Your task to perform on an android device: What's the weather going to be this weekend? Image 0: 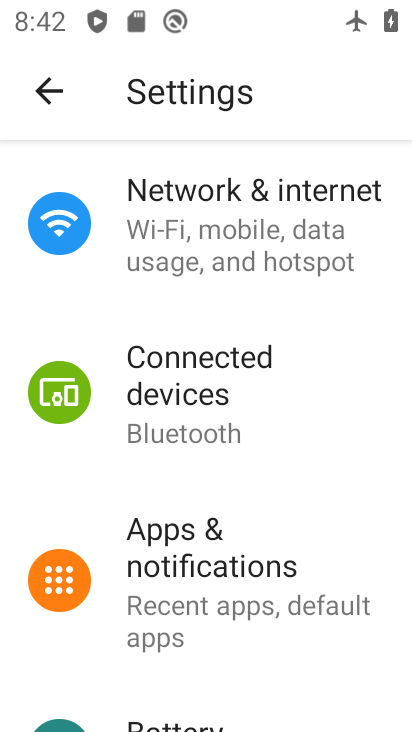
Step 0: press back button
Your task to perform on an android device: What's the weather going to be this weekend? Image 1: 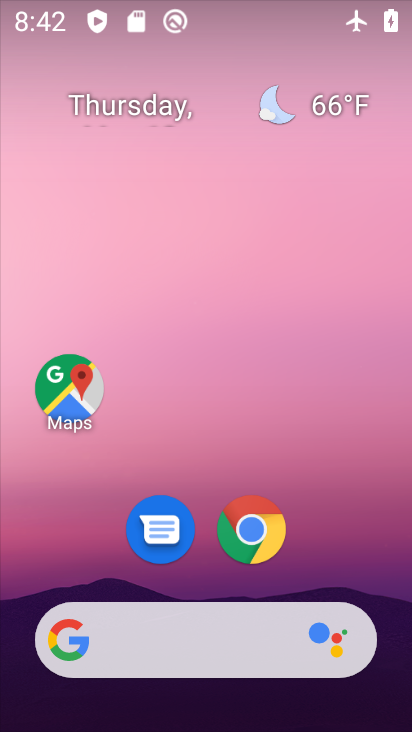
Step 1: drag from (342, 551) to (252, 61)
Your task to perform on an android device: What's the weather going to be this weekend? Image 2: 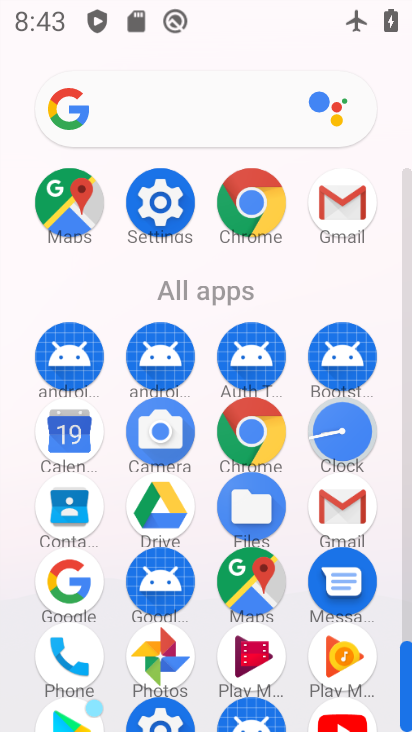
Step 2: click (63, 581)
Your task to perform on an android device: What's the weather going to be this weekend? Image 3: 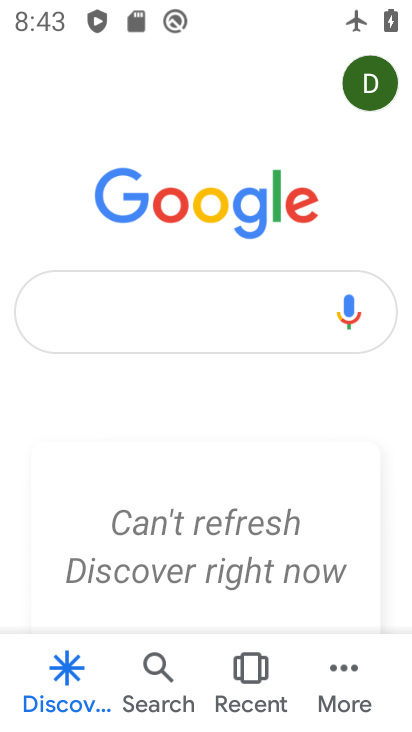
Step 3: task complete